Your task to perform on an android device: Open Maps and search for coffee Image 0: 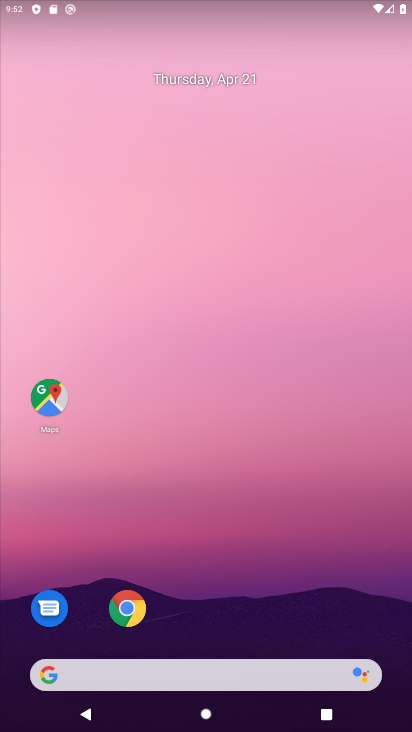
Step 0: click (58, 400)
Your task to perform on an android device: Open Maps and search for coffee Image 1: 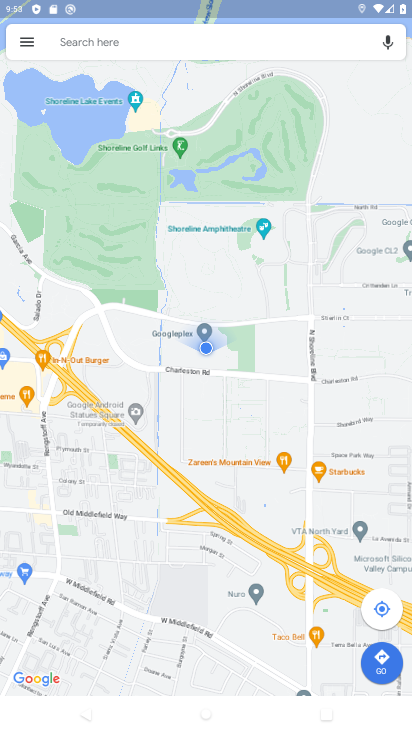
Step 1: click (183, 39)
Your task to perform on an android device: Open Maps and search for coffee Image 2: 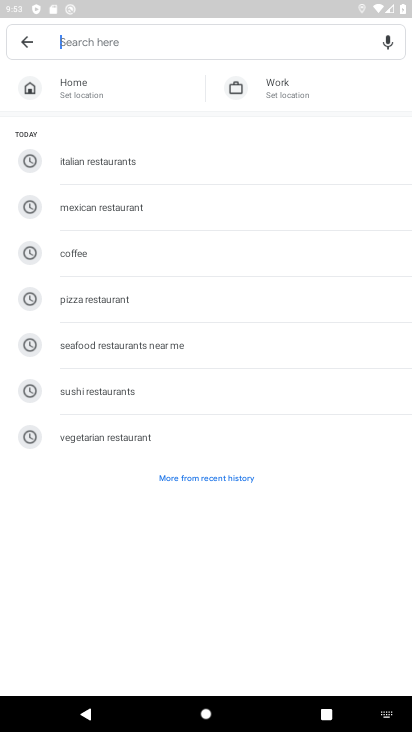
Step 2: click (184, 37)
Your task to perform on an android device: Open Maps and search for coffee Image 3: 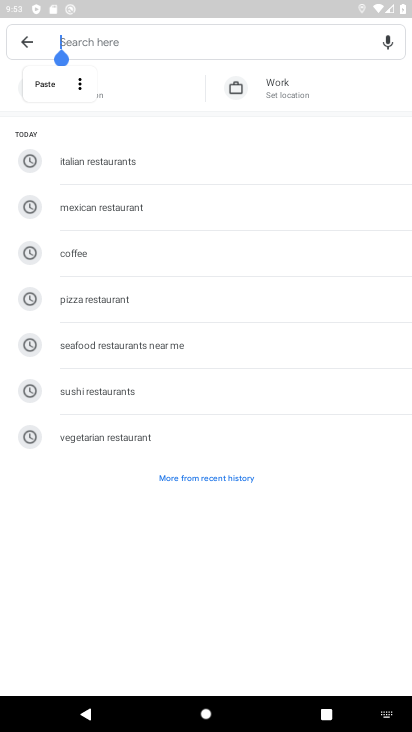
Step 3: click (69, 255)
Your task to perform on an android device: Open Maps and search for coffee Image 4: 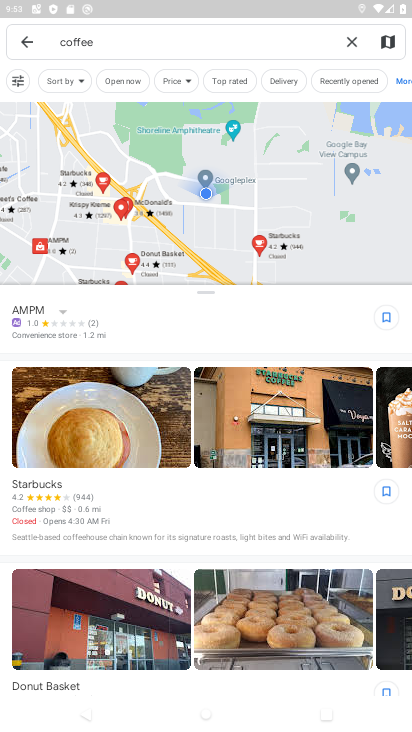
Step 4: task complete